Your task to perform on an android device: Toggle the flashlight Image 0: 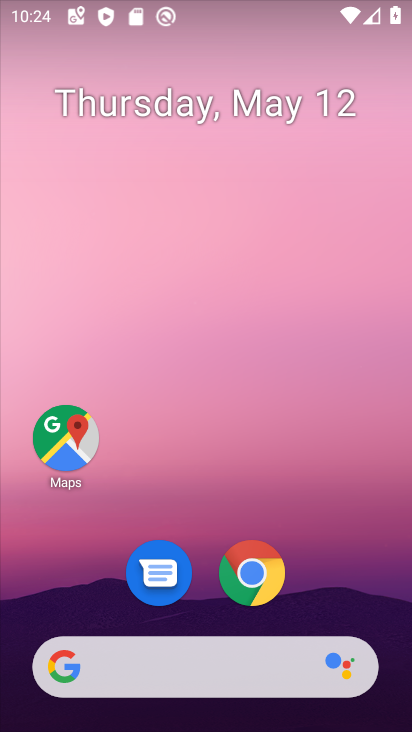
Step 0: drag from (313, 584) to (317, 95)
Your task to perform on an android device: Toggle the flashlight Image 1: 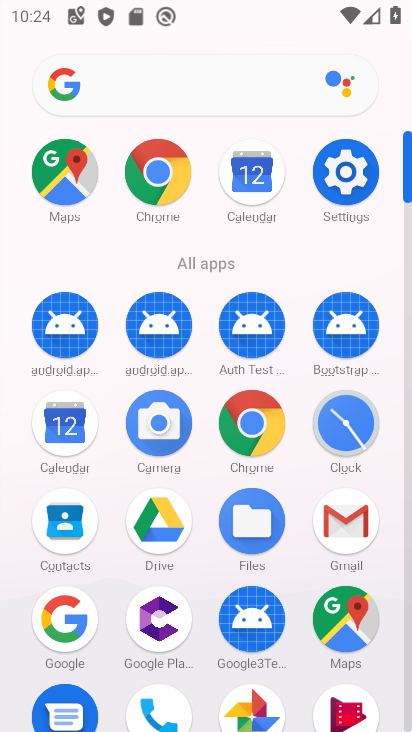
Step 1: click (356, 173)
Your task to perform on an android device: Toggle the flashlight Image 2: 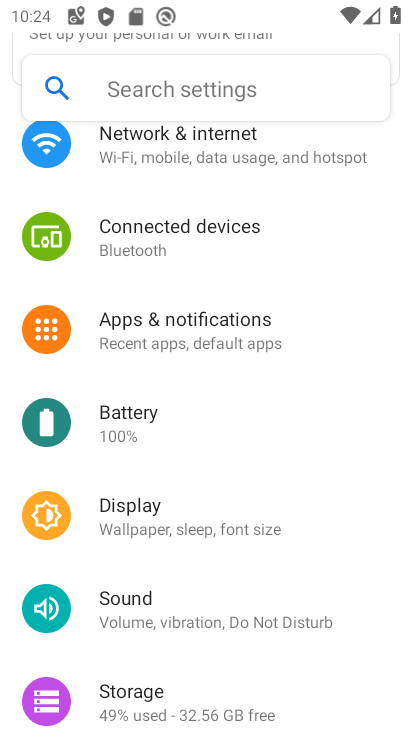
Step 2: click (201, 96)
Your task to perform on an android device: Toggle the flashlight Image 3: 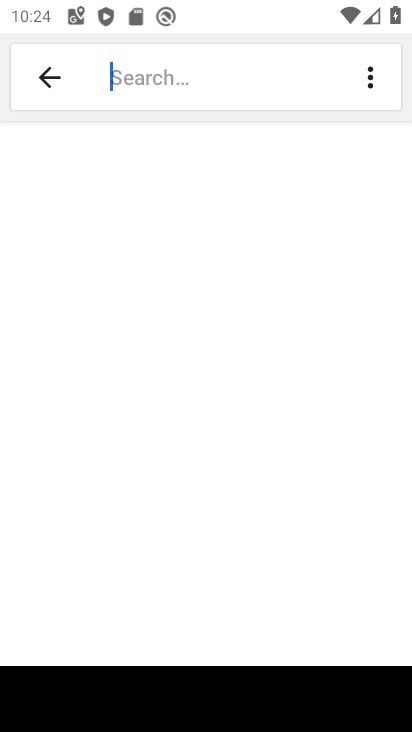
Step 3: type "flashlight"
Your task to perform on an android device: Toggle the flashlight Image 4: 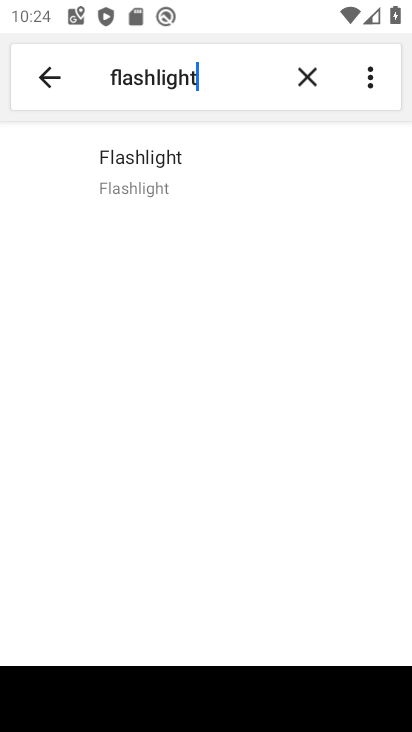
Step 4: click (152, 177)
Your task to perform on an android device: Toggle the flashlight Image 5: 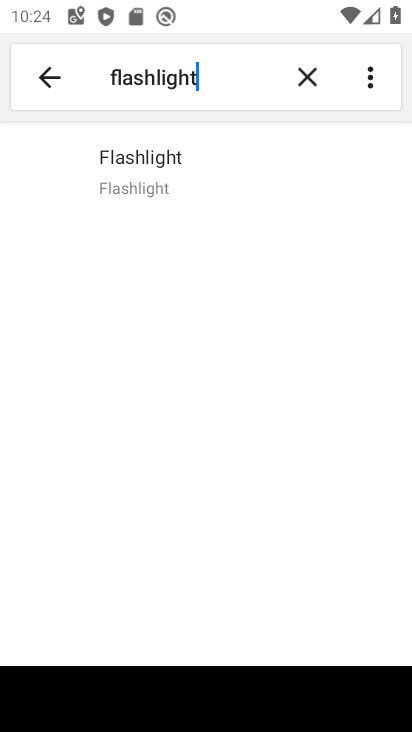
Step 5: task complete